Your task to perform on an android device: What's the weather today? Image 0: 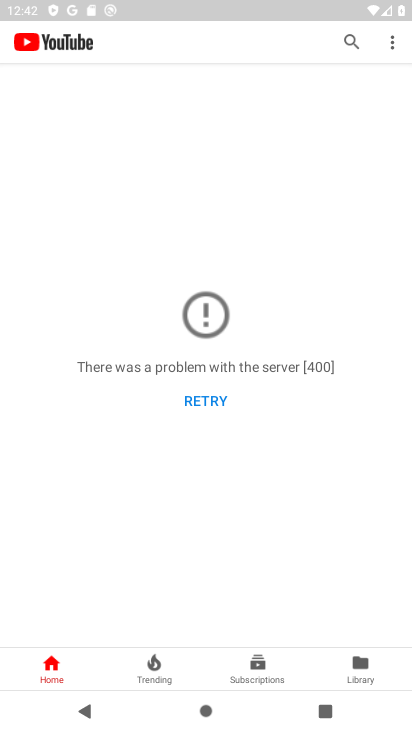
Step 0: press home button
Your task to perform on an android device: What's the weather today? Image 1: 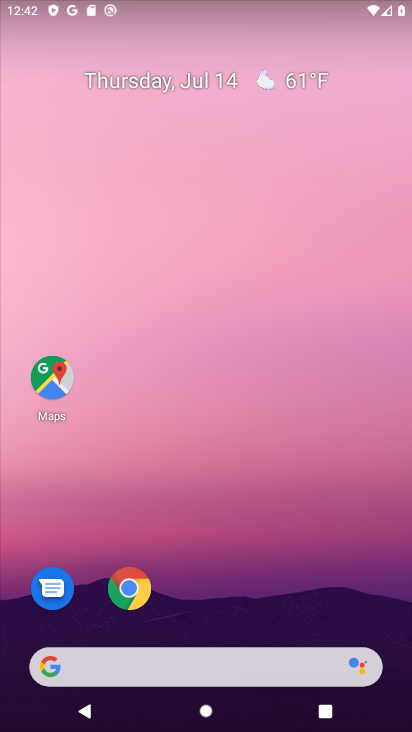
Step 1: drag from (261, 583) to (277, 0)
Your task to perform on an android device: What's the weather today? Image 2: 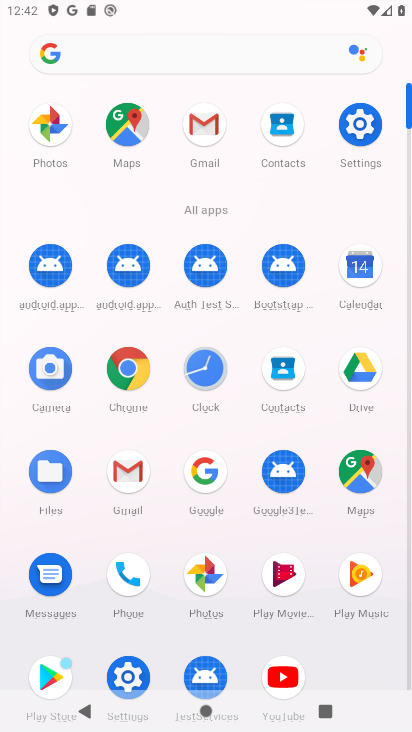
Step 2: click (241, 62)
Your task to perform on an android device: What's the weather today? Image 3: 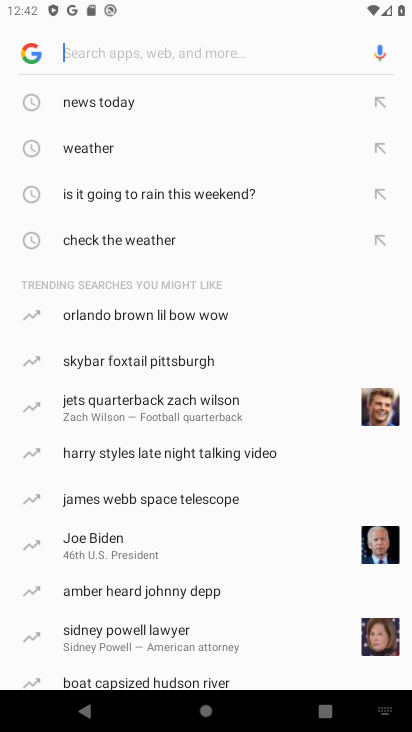
Step 3: click (112, 147)
Your task to perform on an android device: What's the weather today? Image 4: 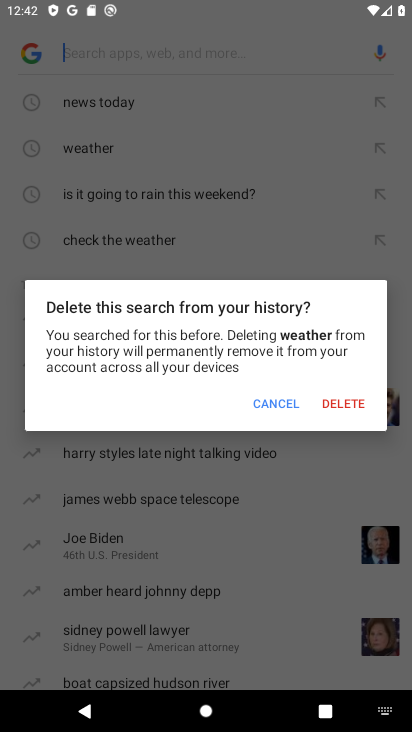
Step 4: click (272, 404)
Your task to perform on an android device: What's the weather today? Image 5: 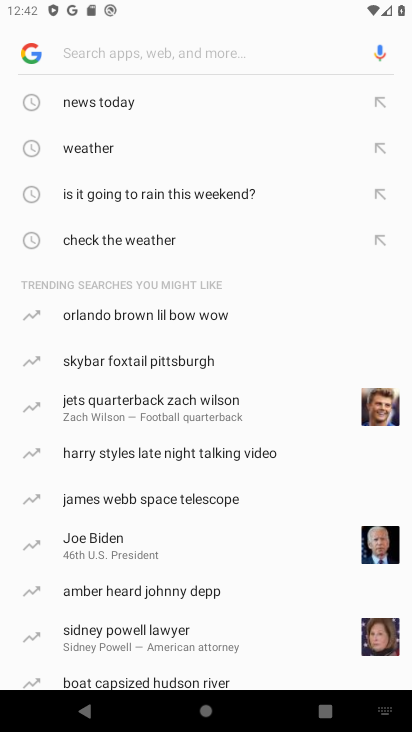
Step 5: click (147, 157)
Your task to perform on an android device: What's the weather today? Image 6: 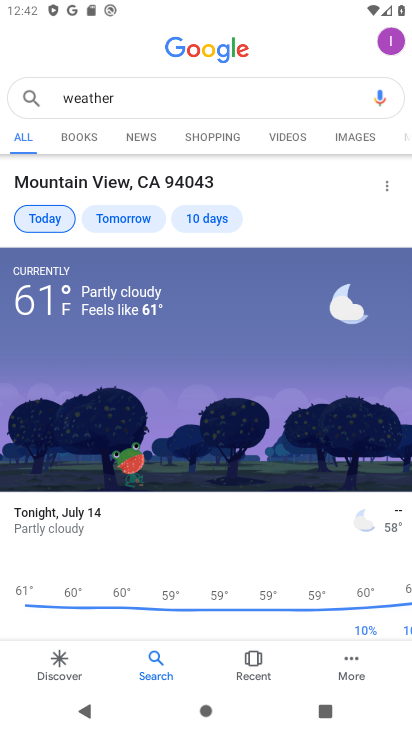
Step 6: task complete